Your task to perform on an android device: toggle airplane mode Image 0: 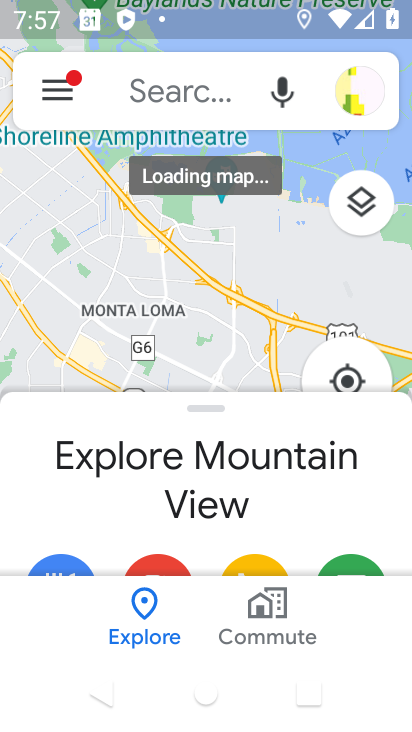
Step 0: press home button
Your task to perform on an android device: toggle airplane mode Image 1: 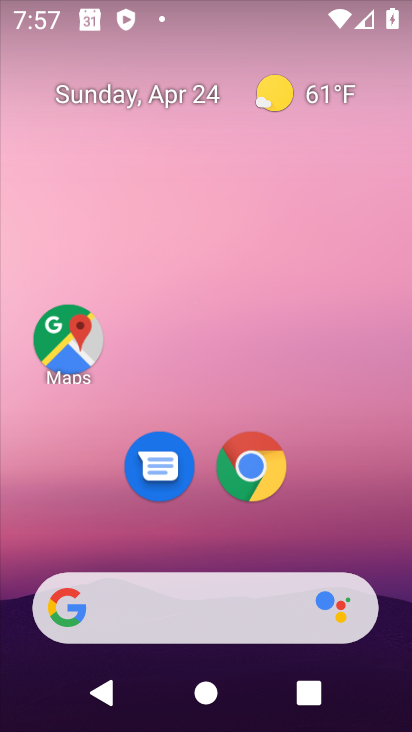
Step 1: drag from (213, 538) to (300, 2)
Your task to perform on an android device: toggle airplane mode Image 2: 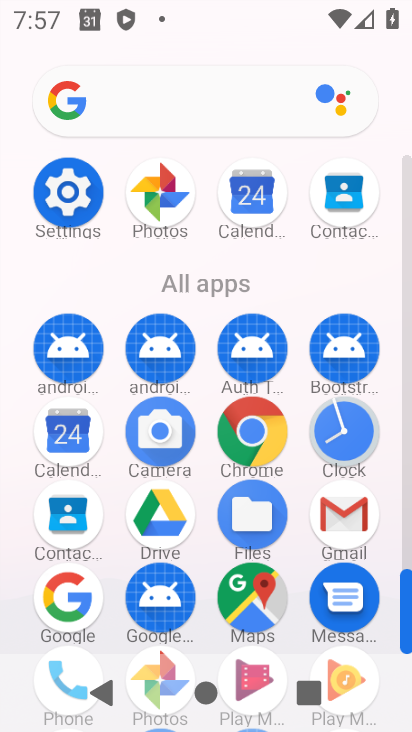
Step 2: click (68, 211)
Your task to perform on an android device: toggle airplane mode Image 3: 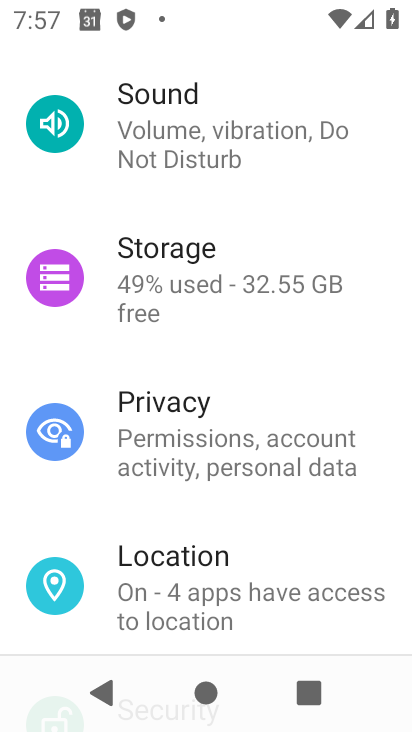
Step 3: drag from (266, 151) to (229, 714)
Your task to perform on an android device: toggle airplane mode Image 4: 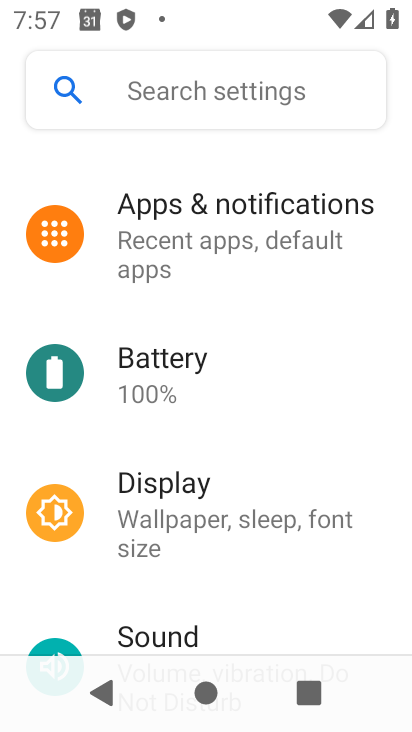
Step 4: drag from (235, 356) to (214, 723)
Your task to perform on an android device: toggle airplane mode Image 5: 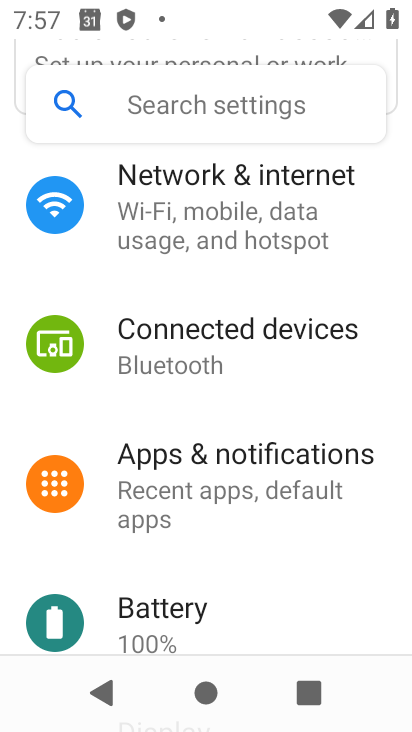
Step 5: click (222, 248)
Your task to perform on an android device: toggle airplane mode Image 6: 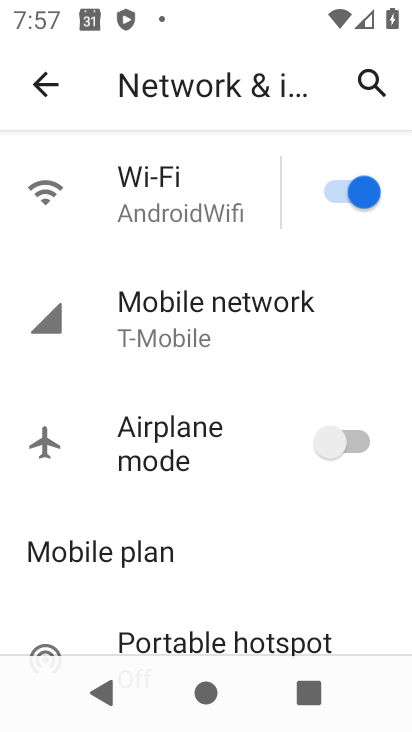
Step 6: click (344, 442)
Your task to perform on an android device: toggle airplane mode Image 7: 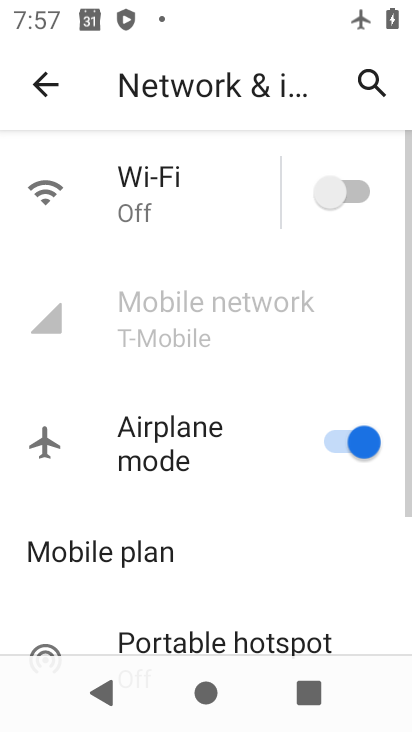
Step 7: task complete